Your task to perform on an android device: Open calendar and show me the fourth week of next month Image 0: 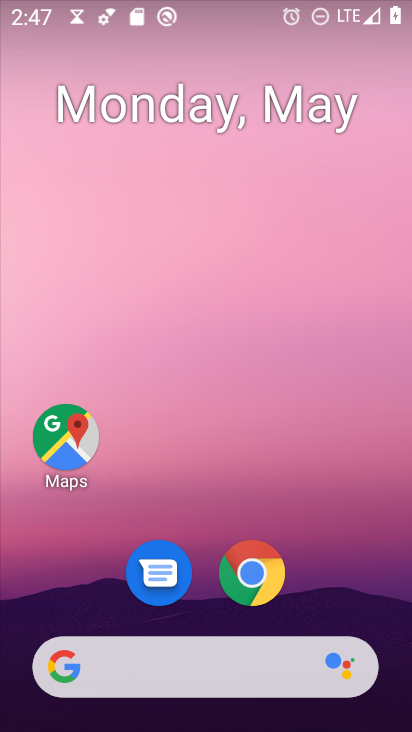
Step 0: drag from (277, 652) to (278, 2)
Your task to perform on an android device: Open calendar and show me the fourth week of next month Image 1: 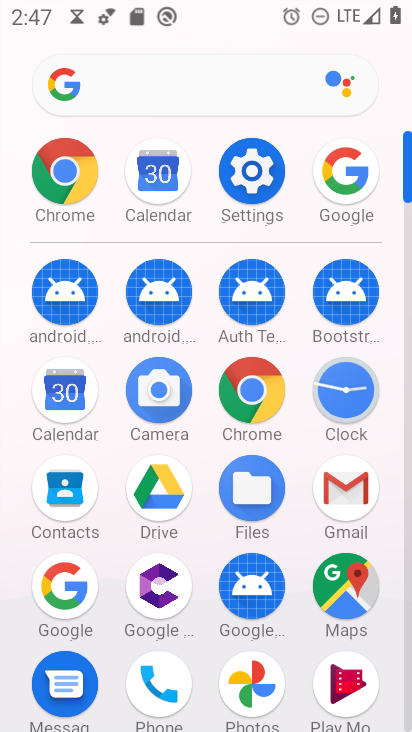
Step 1: click (61, 401)
Your task to perform on an android device: Open calendar and show me the fourth week of next month Image 2: 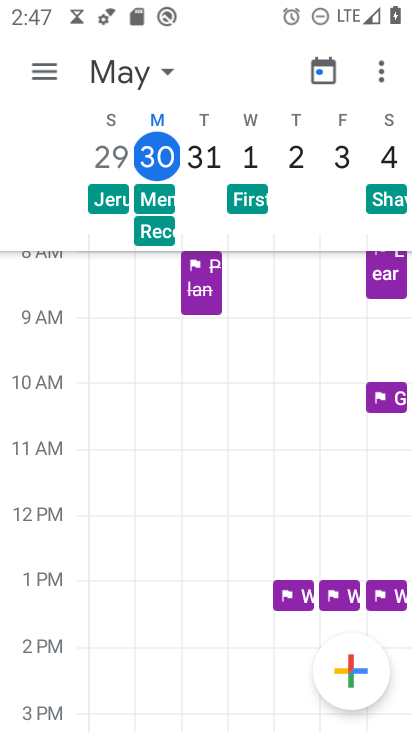
Step 2: click (172, 67)
Your task to perform on an android device: Open calendar and show me the fourth week of next month Image 3: 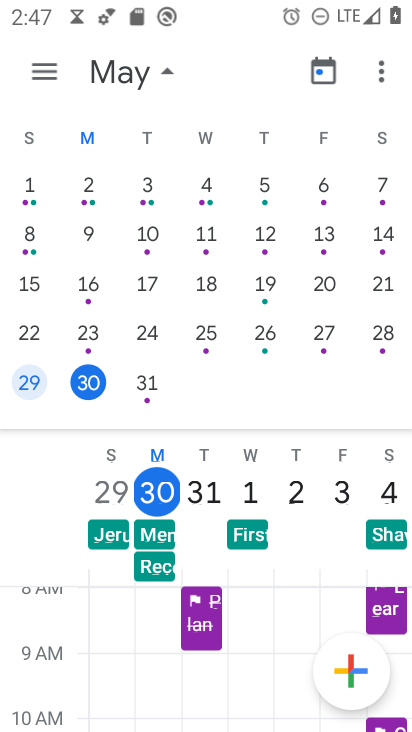
Step 3: drag from (379, 317) to (11, 314)
Your task to perform on an android device: Open calendar and show me the fourth week of next month Image 4: 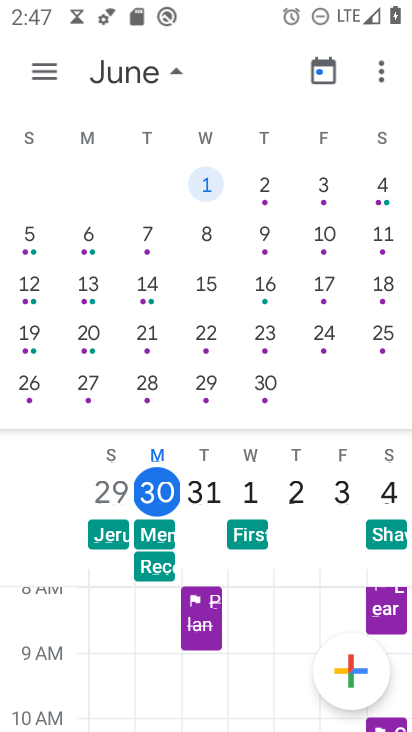
Step 4: click (266, 335)
Your task to perform on an android device: Open calendar and show me the fourth week of next month Image 5: 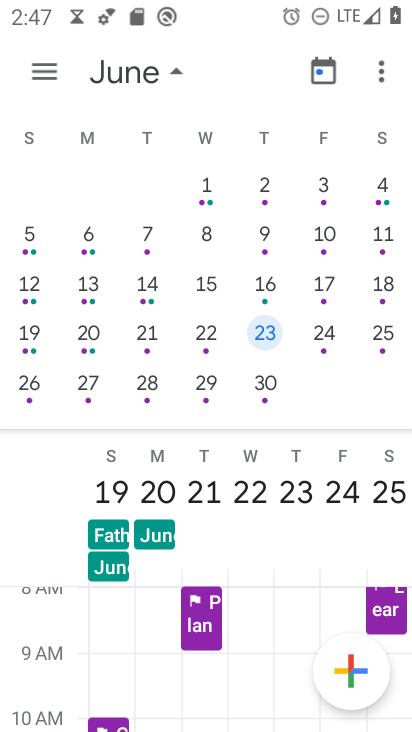
Step 5: task complete